Your task to perform on an android device: turn vacation reply on in the gmail app Image 0: 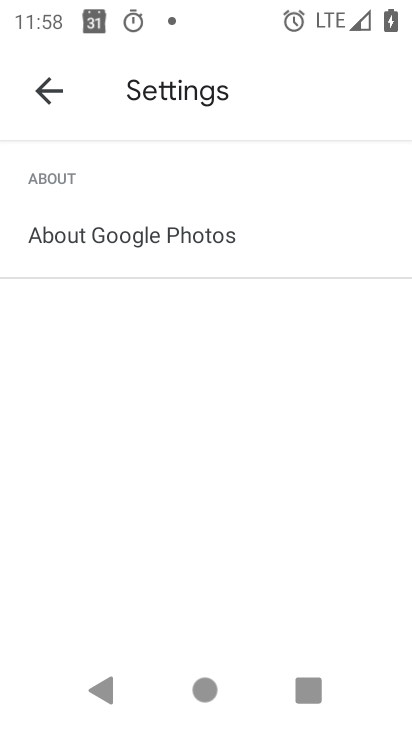
Step 0: press home button
Your task to perform on an android device: turn vacation reply on in the gmail app Image 1: 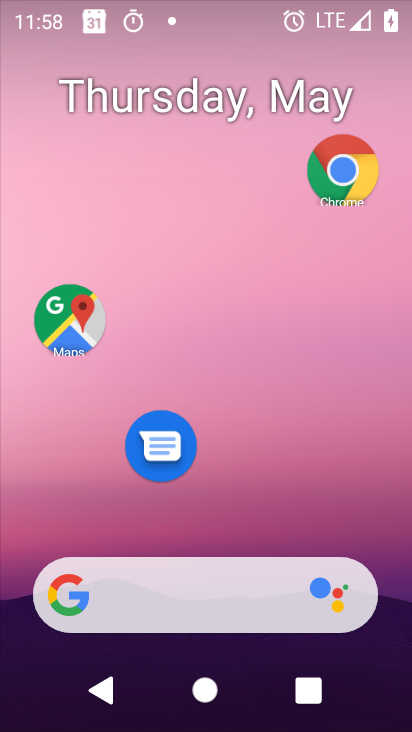
Step 1: drag from (311, 588) to (370, 24)
Your task to perform on an android device: turn vacation reply on in the gmail app Image 2: 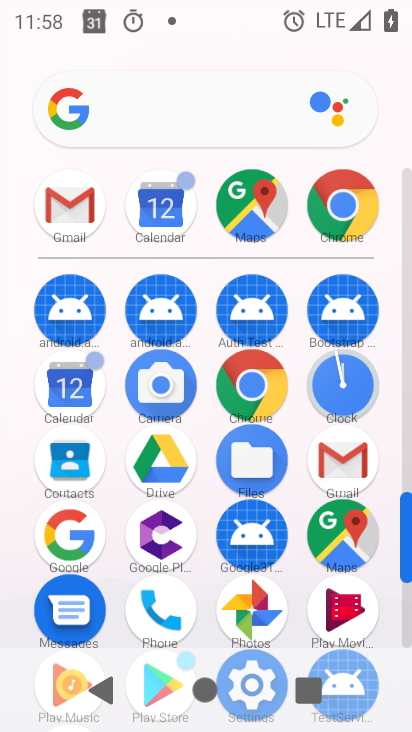
Step 2: click (350, 469)
Your task to perform on an android device: turn vacation reply on in the gmail app Image 3: 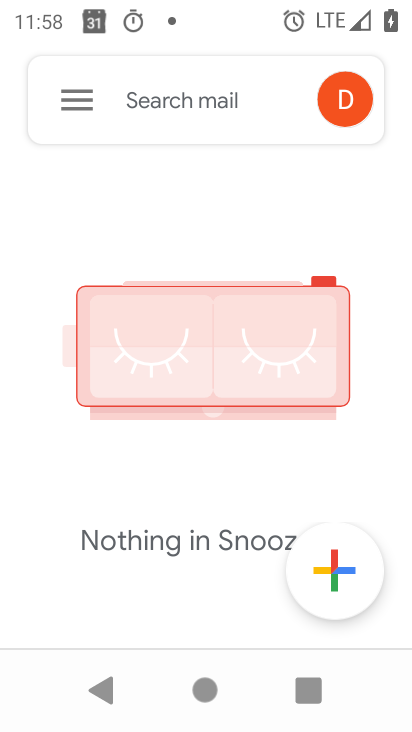
Step 3: click (81, 99)
Your task to perform on an android device: turn vacation reply on in the gmail app Image 4: 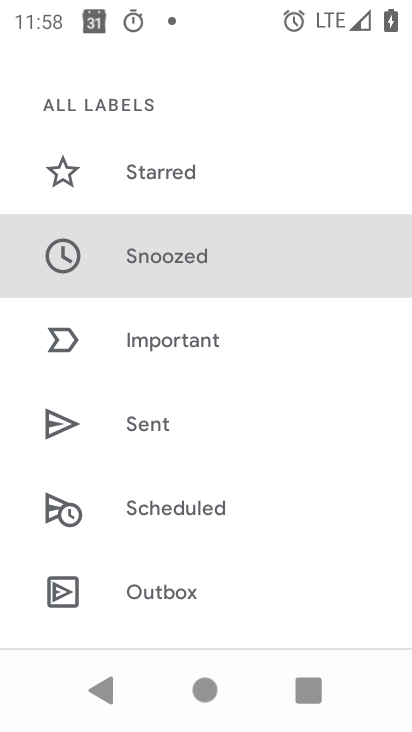
Step 4: press back button
Your task to perform on an android device: turn vacation reply on in the gmail app Image 5: 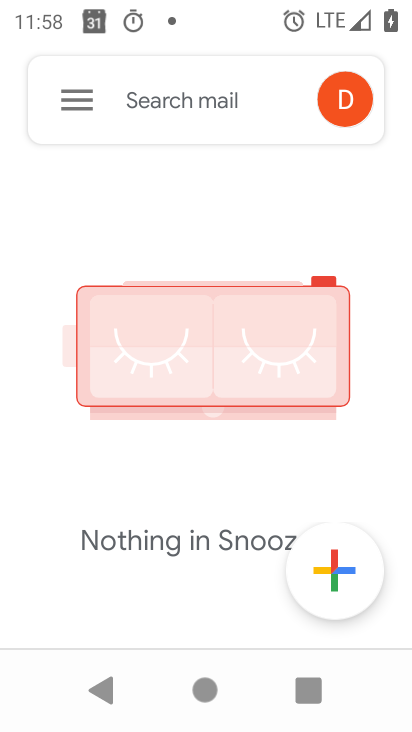
Step 5: click (210, 105)
Your task to perform on an android device: turn vacation reply on in the gmail app Image 6: 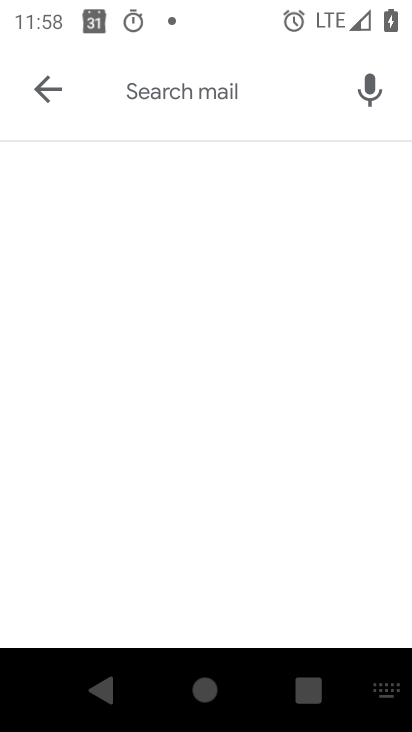
Step 6: press home button
Your task to perform on an android device: turn vacation reply on in the gmail app Image 7: 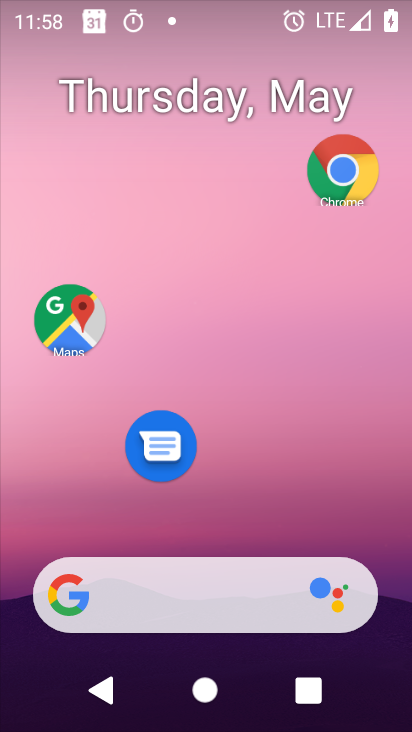
Step 7: drag from (141, 682) to (239, 24)
Your task to perform on an android device: turn vacation reply on in the gmail app Image 8: 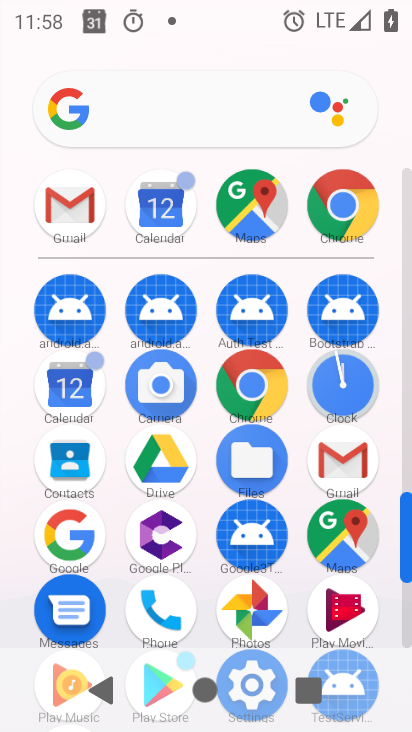
Step 8: click (353, 471)
Your task to perform on an android device: turn vacation reply on in the gmail app Image 9: 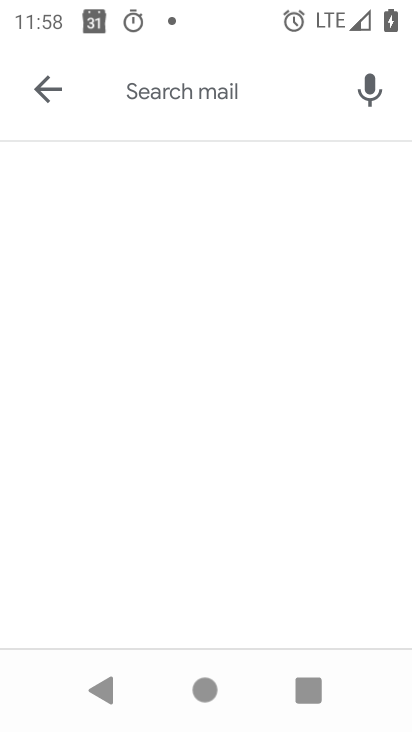
Step 9: press back button
Your task to perform on an android device: turn vacation reply on in the gmail app Image 10: 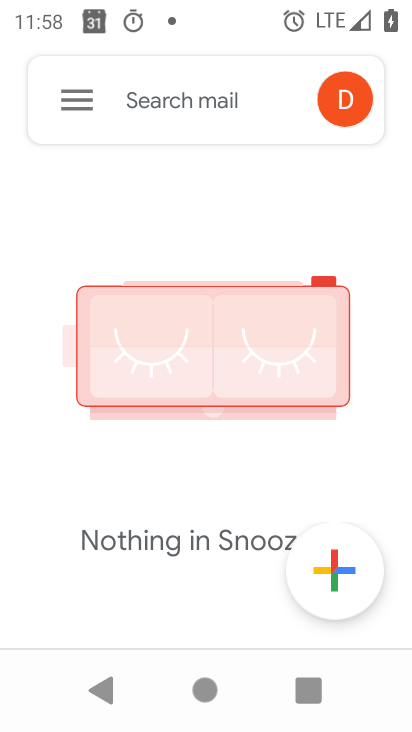
Step 10: click (78, 91)
Your task to perform on an android device: turn vacation reply on in the gmail app Image 11: 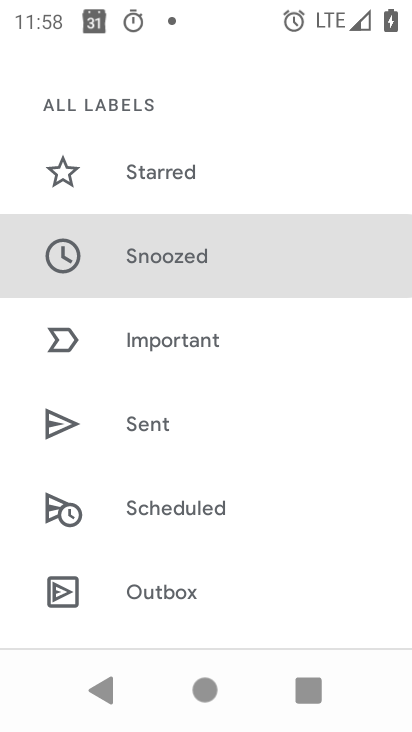
Step 11: drag from (261, 607) to (292, 91)
Your task to perform on an android device: turn vacation reply on in the gmail app Image 12: 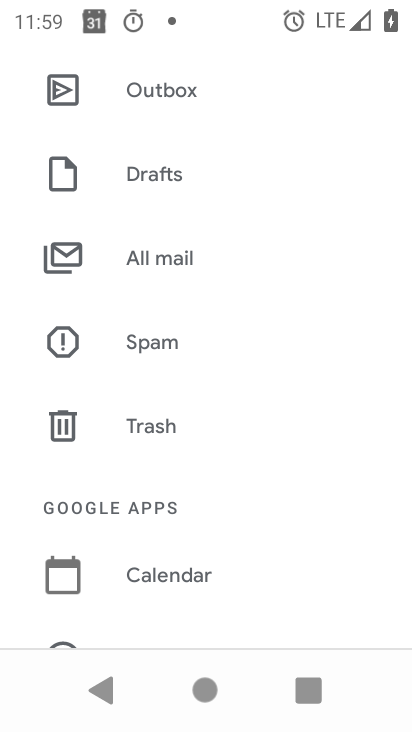
Step 12: drag from (220, 653) to (230, 151)
Your task to perform on an android device: turn vacation reply on in the gmail app Image 13: 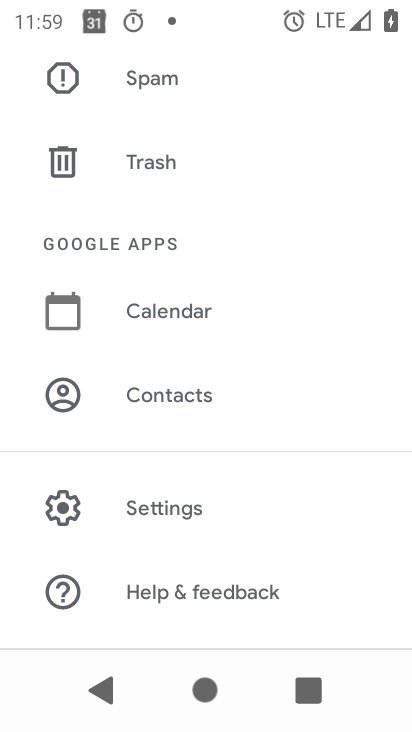
Step 13: click (210, 500)
Your task to perform on an android device: turn vacation reply on in the gmail app Image 14: 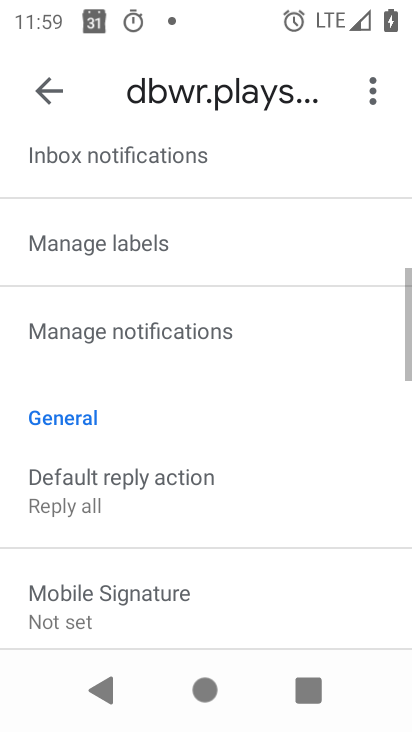
Step 14: drag from (191, 639) to (215, 728)
Your task to perform on an android device: turn vacation reply on in the gmail app Image 15: 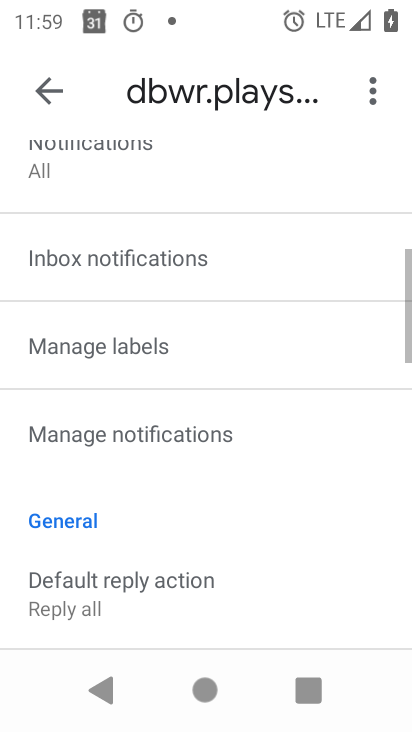
Step 15: drag from (218, 343) to (324, 65)
Your task to perform on an android device: turn vacation reply on in the gmail app Image 16: 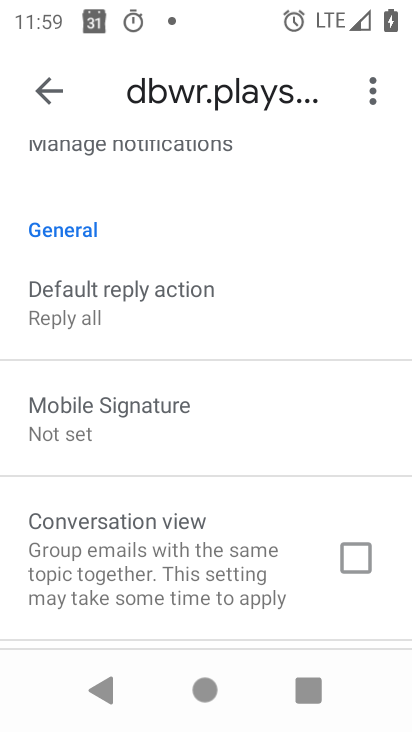
Step 16: drag from (230, 587) to (290, 0)
Your task to perform on an android device: turn vacation reply on in the gmail app Image 17: 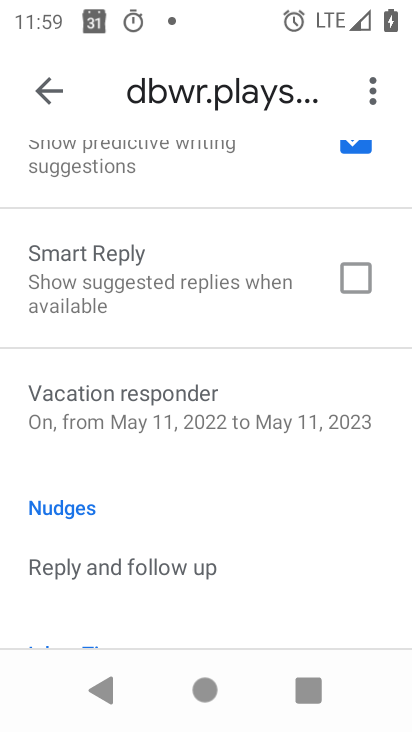
Step 17: click (183, 416)
Your task to perform on an android device: turn vacation reply on in the gmail app Image 18: 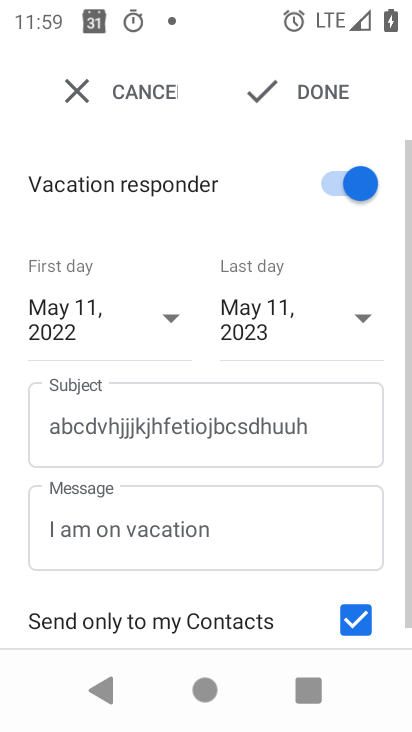
Step 18: click (334, 89)
Your task to perform on an android device: turn vacation reply on in the gmail app Image 19: 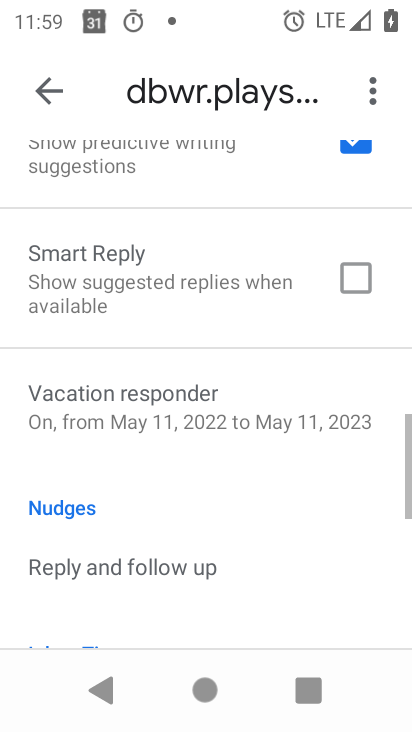
Step 19: task complete